Your task to perform on an android device: open app "Adobe Acrobat Reader" (install if not already installed) Image 0: 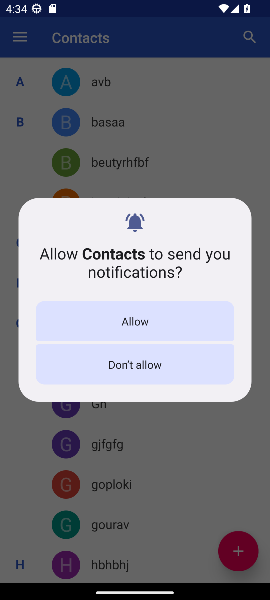
Step 0: press home button
Your task to perform on an android device: open app "Adobe Acrobat Reader" (install if not already installed) Image 1: 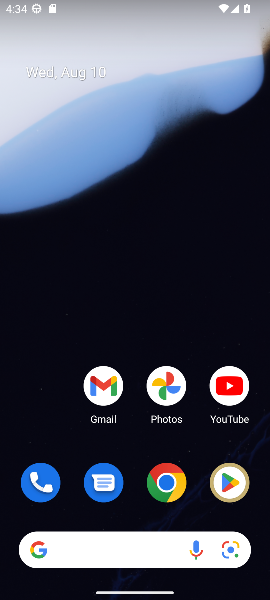
Step 1: drag from (126, 529) to (115, 56)
Your task to perform on an android device: open app "Adobe Acrobat Reader" (install if not already installed) Image 2: 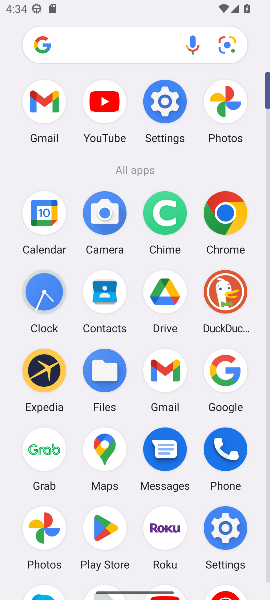
Step 2: click (105, 528)
Your task to perform on an android device: open app "Adobe Acrobat Reader" (install if not already installed) Image 3: 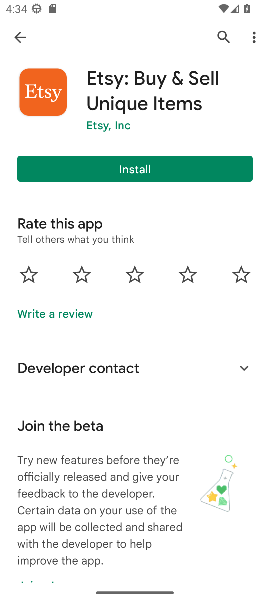
Step 3: click (221, 32)
Your task to perform on an android device: open app "Adobe Acrobat Reader" (install if not already installed) Image 4: 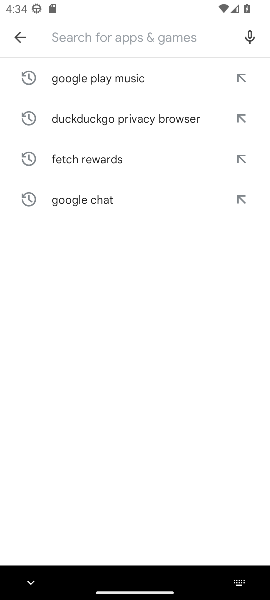
Step 4: type "Adobe Acrobat Reader"
Your task to perform on an android device: open app "Adobe Acrobat Reader" (install if not already installed) Image 5: 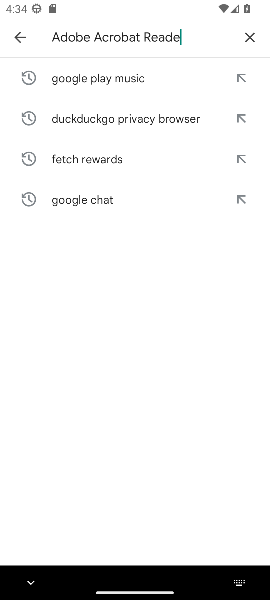
Step 5: type ""
Your task to perform on an android device: open app "Adobe Acrobat Reader" (install if not already installed) Image 6: 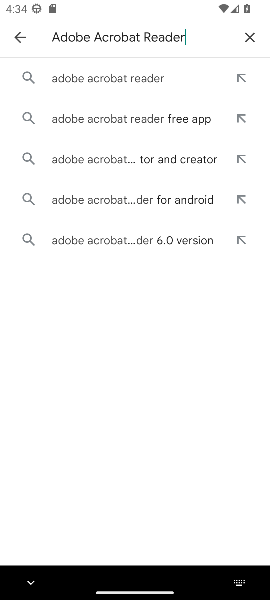
Step 6: click (115, 80)
Your task to perform on an android device: open app "Adobe Acrobat Reader" (install if not already installed) Image 7: 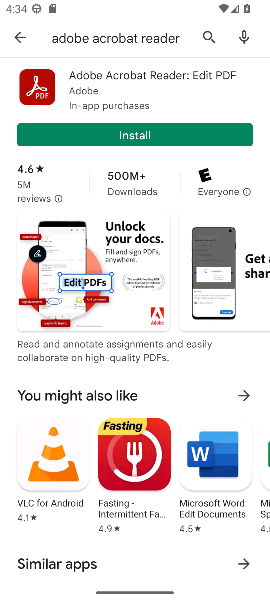
Step 7: click (145, 136)
Your task to perform on an android device: open app "Adobe Acrobat Reader" (install if not already installed) Image 8: 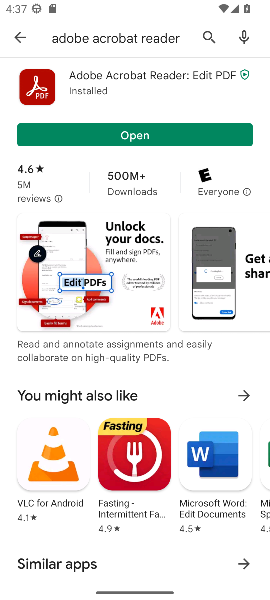
Step 8: click (137, 133)
Your task to perform on an android device: open app "Adobe Acrobat Reader" (install if not already installed) Image 9: 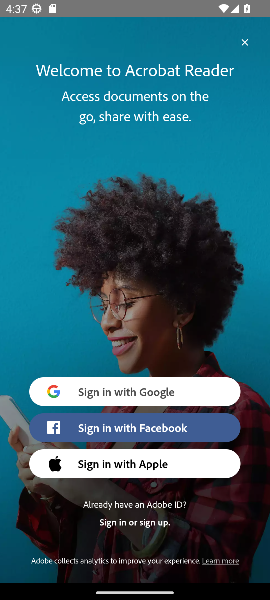
Step 9: task complete